Your task to perform on an android device: Search for sushi restaurants on Maps Image 0: 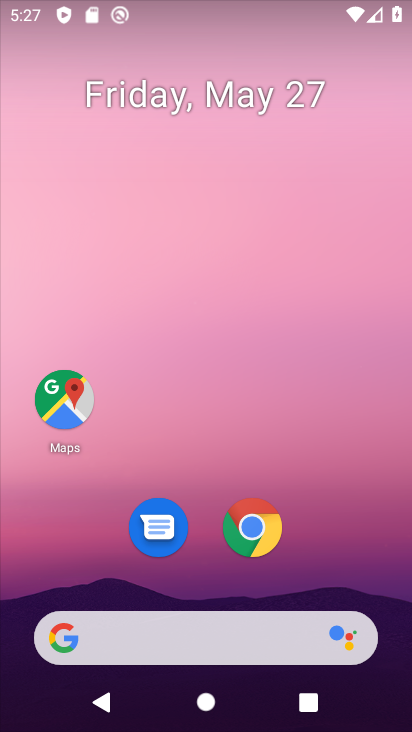
Step 0: click (67, 388)
Your task to perform on an android device: Search for sushi restaurants on Maps Image 1: 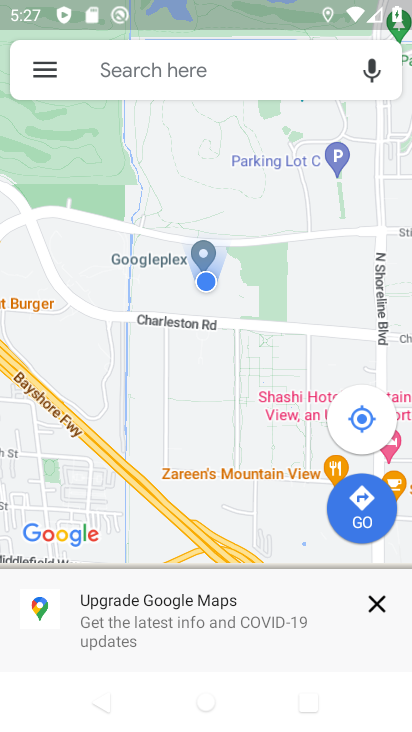
Step 1: click (270, 63)
Your task to perform on an android device: Search for sushi restaurants on Maps Image 2: 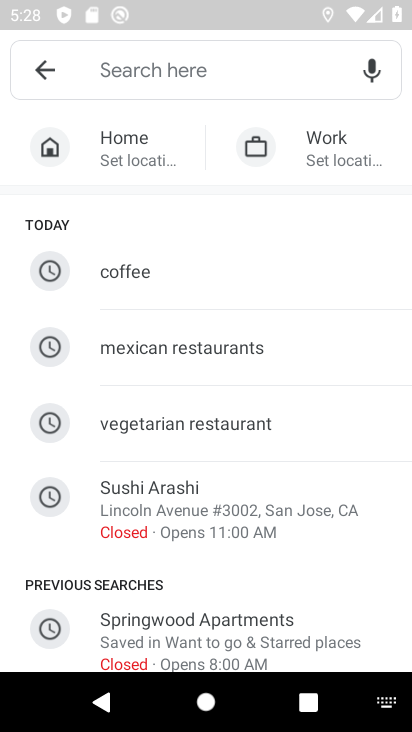
Step 2: type "sushi restaurants"
Your task to perform on an android device: Search for sushi restaurants on Maps Image 3: 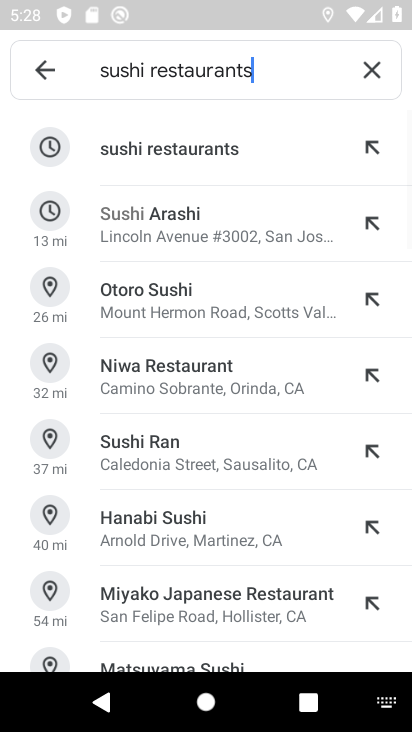
Step 3: click (187, 160)
Your task to perform on an android device: Search for sushi restaurants on Maps Image 4: 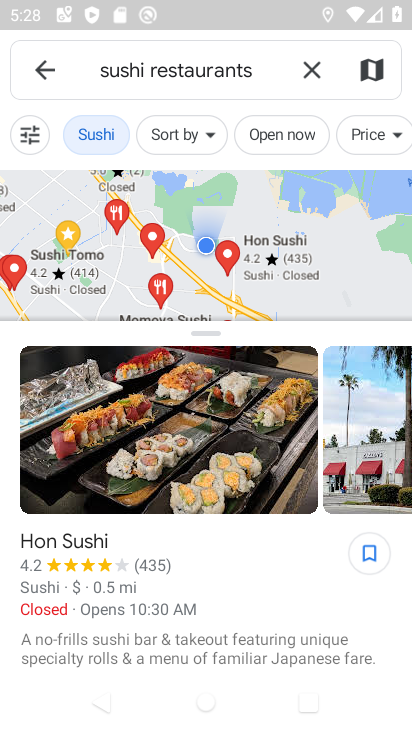
Step 4: task complete